Your task to perform on an android device: Open the calendar app, open the side menu, and click the "Day" option Image 0: 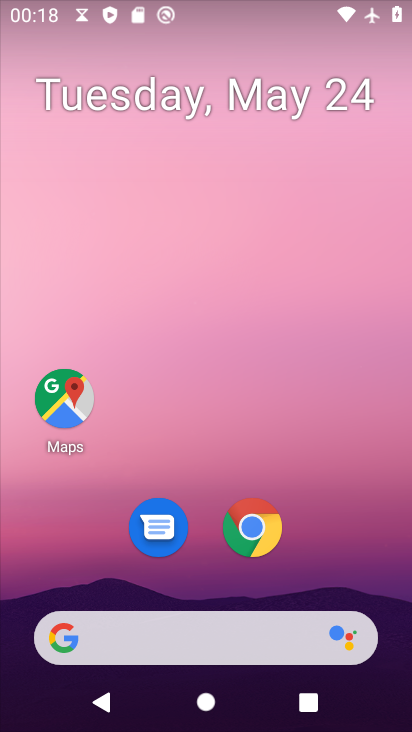
Step 0: press home button
Your task to perform on an android device: Open the calendar app, open the side menu, and click the "Day" option Image 1: 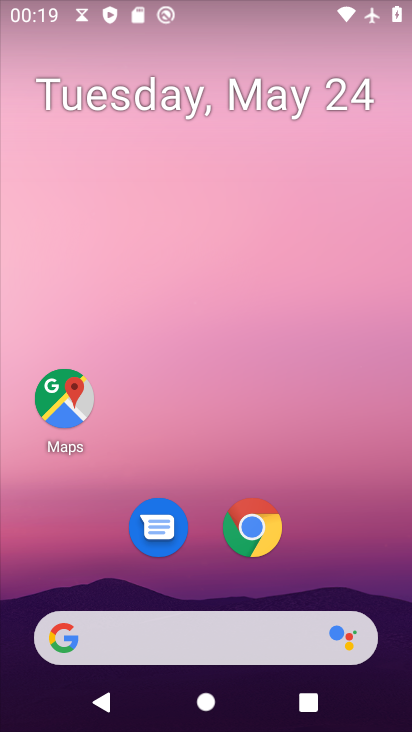
Step 1: drag from (176, 651) to (236, 163)
Your task to perform on an android device: Open the calendar app, open the side menu, and click the "Day" option Image 2: 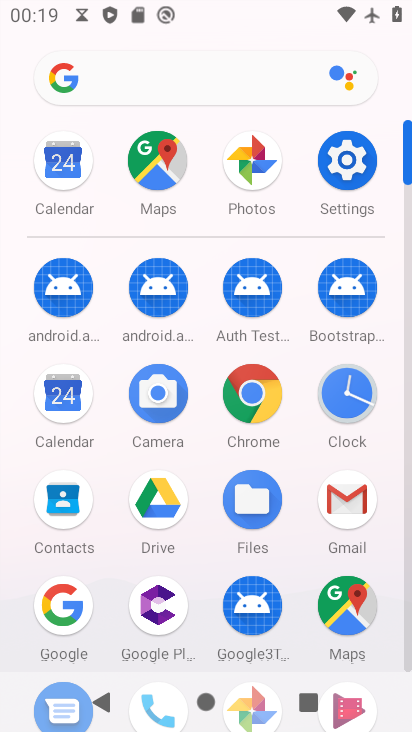
Step 2: click (68, 397)
Your task to perform on an android device: Open the calendar app, open the side menu, and click the "Day" option Image 3: 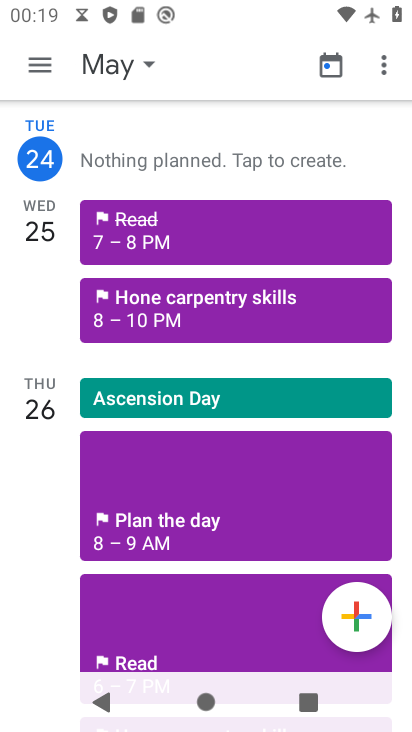
Step 3: click (28, 58)
Your task to perform on an android device: Open the calendar app, open the side menu, and click the "Day" option Image 4: 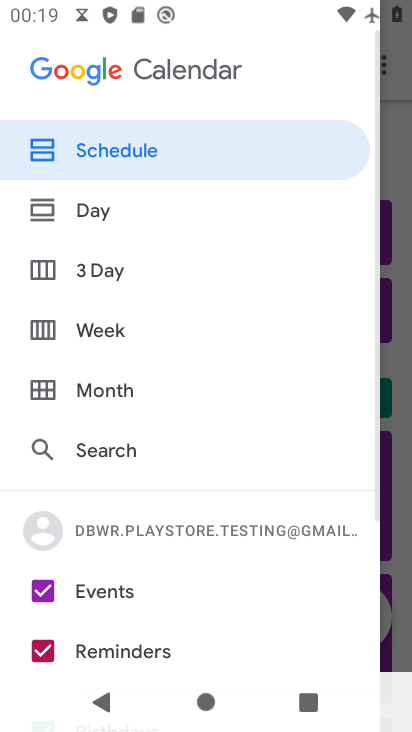
Step 4: click (103, 210)
Your task to perform on an android device: Open the calendar app, open the side menu, and click the "Day" option Image 5: 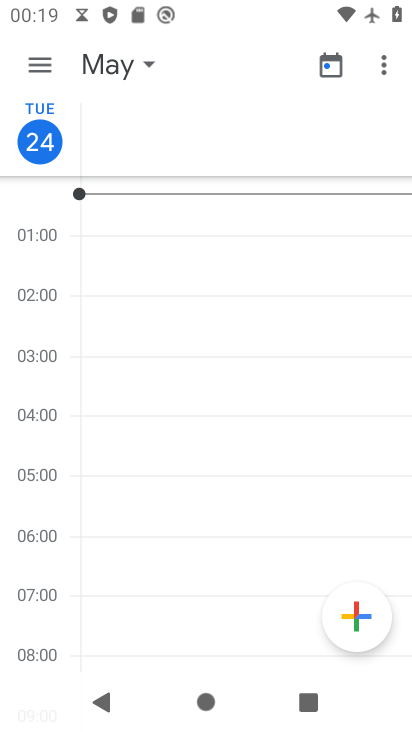
Step 5: task complete